Your task to perform on an android device: set the timer Image 0: 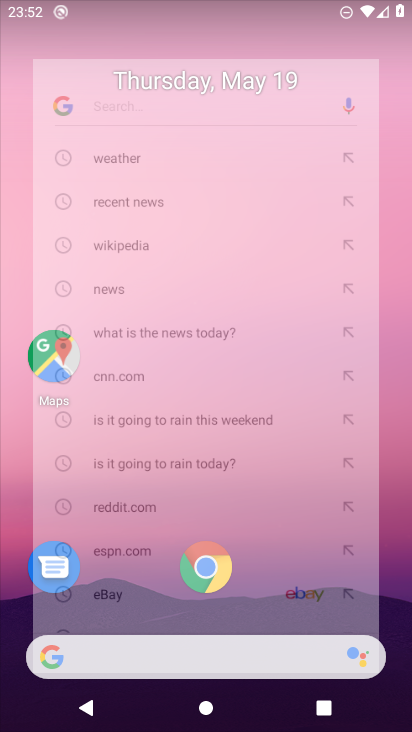
Step 0: press home button
Your task to perform on an android device: set the timer Image 1: 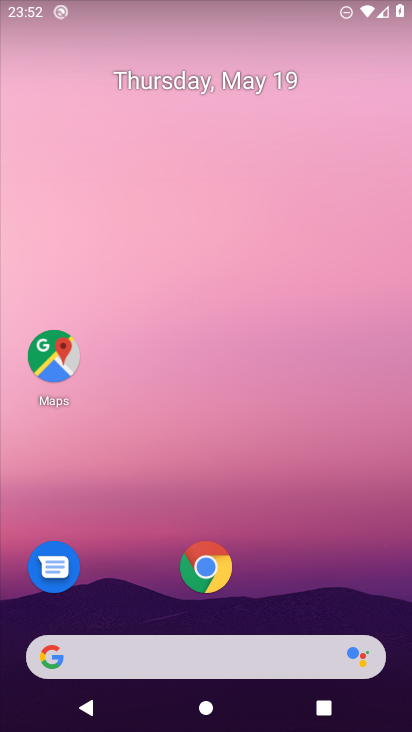
Step 1: drag from (236, 614) to (217, 4)
Your task to perform on an android device: set the timer Image 2: 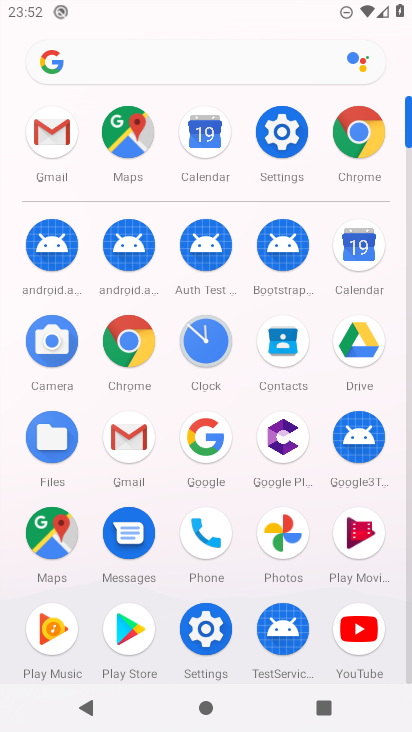
Step 2: click (198, 329)
Your task to perform on an android device: set the timer Image 3: 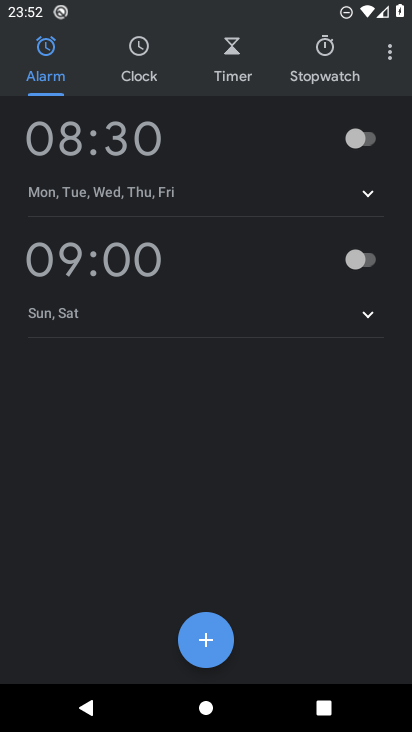
Step 3: click (234, 39)
Your task to perform on an android device: set the timer Image 4: 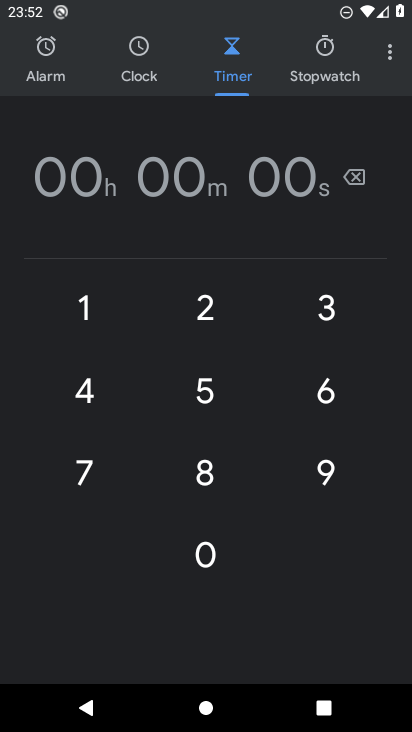
Step 4: click (81, 317)
Your task to perform on an android device: set the timer Image 5: 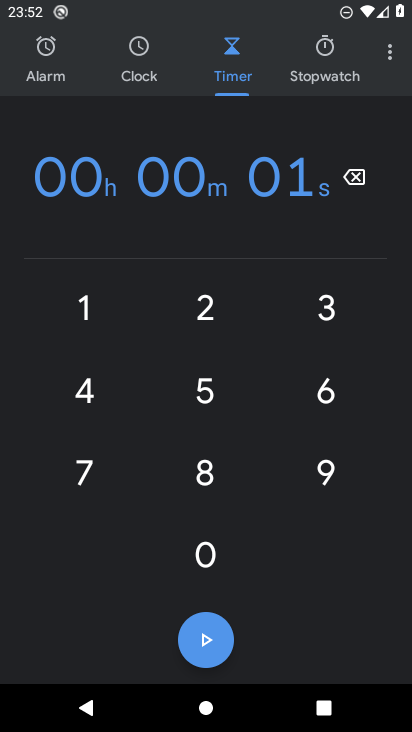
Step 5: click (195, 550)
Your task to perform on an android device: set the timer Image 6: 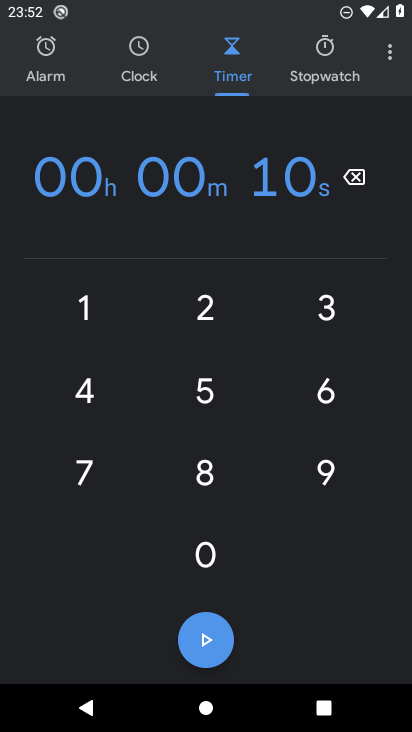
Step 6: click (195, 550)
Your task to perform on an android device: set the timer Image 7: 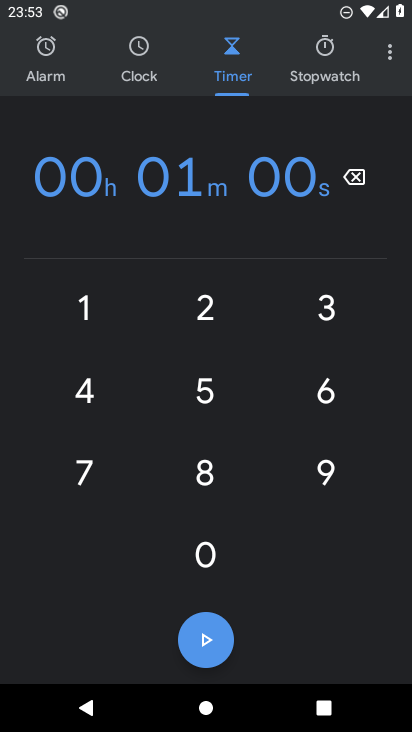
Step 7: click (195, 550)
Your task to perform on an android device: set the timer Image 8: 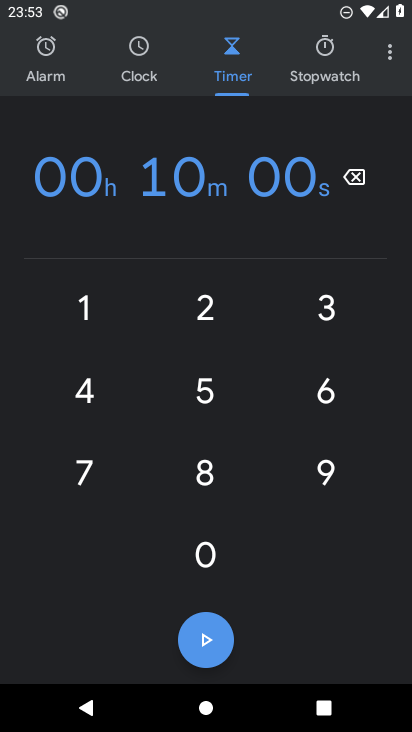
Step 8: click (211, 638)
Your task to perform on an android device: set the timer Image 9: 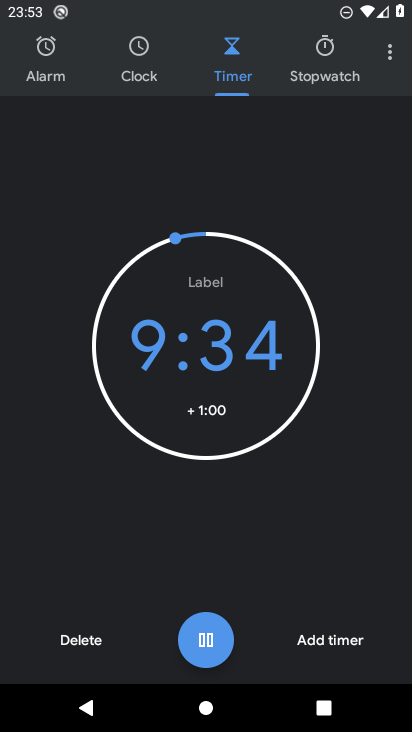
Step 9: task complete